Your task to perform on an android device: toggle airplane mode Image 0: 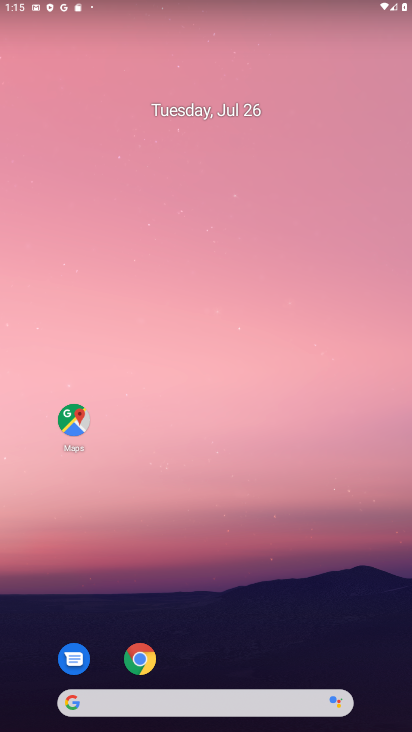
Step 0: press home button
Your task to perform on an android device: toggle airplane mode Image 1: 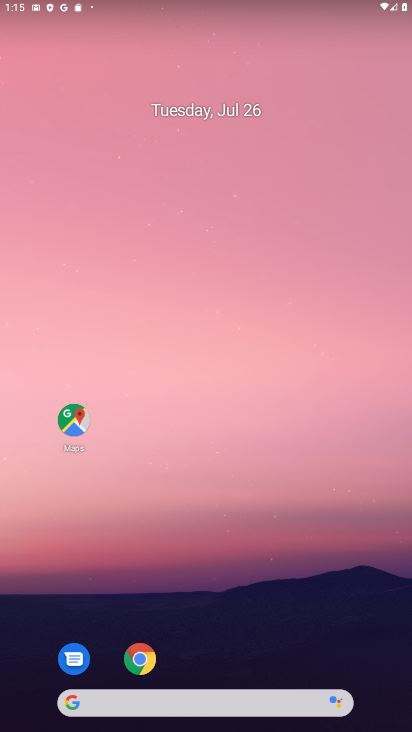
Step 1: drag from (215, 21) to (270, 541)
Your task to perform on an android device: toggle airplane mode Image 2: 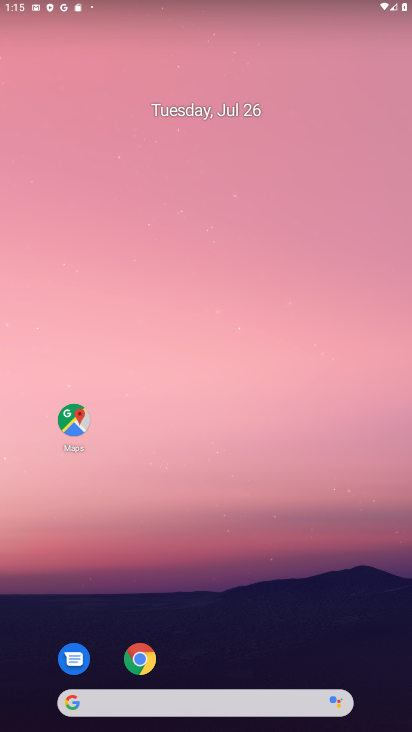
Step 2: drag from (218, 18) to (222, 489)
Your task to perform on an android device: toggle airplane mode Image 3: 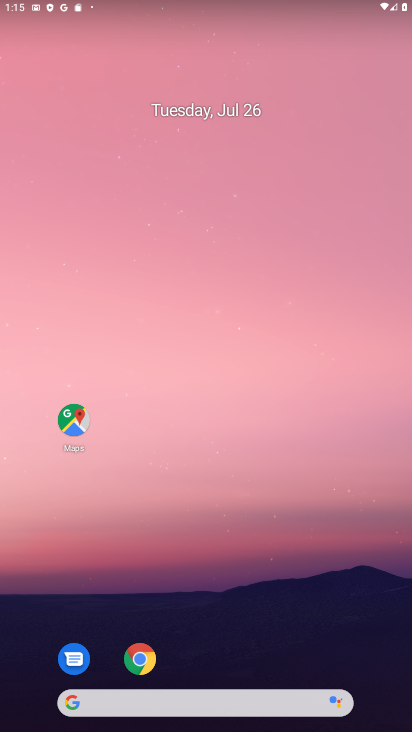
Step 3: drag from (222, 4) to (237, 574)
Your task to perform on an android device: toggle airplane mode Image 4: 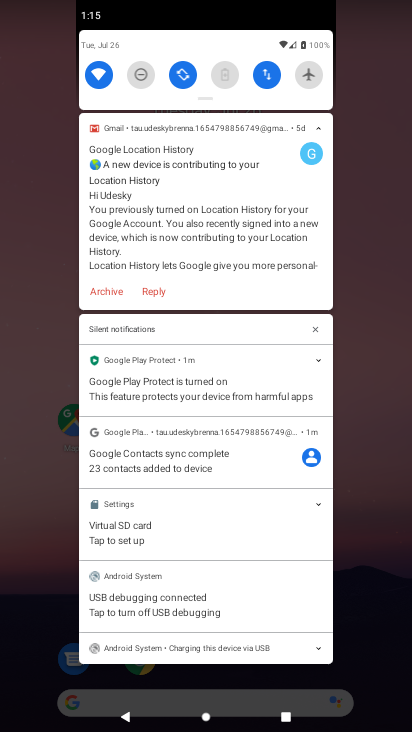
Step 4: click (311, 73)
Your task to perform on an android device: toggle airplane mode Image 5: 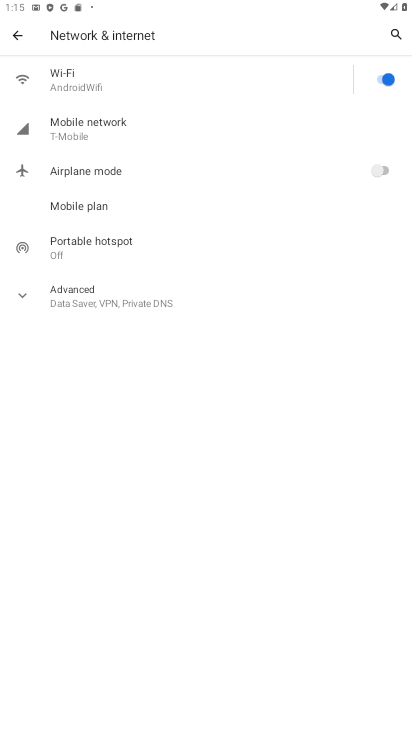
Step 5: click (375, 166)
Your task to perform on an android device: toggle airplane mode Image 6: 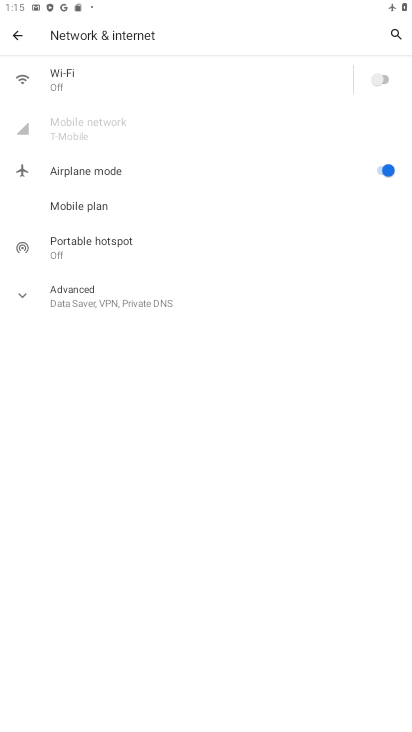
Step 6: task complete